Your task to perform on an android device: Open my contact list Image 0: 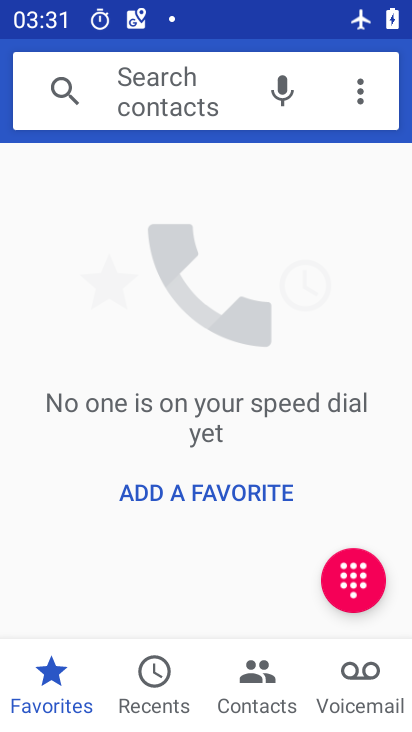
Step 0: press back button
Your task to perform on an android device: Open my contact list Image 1: 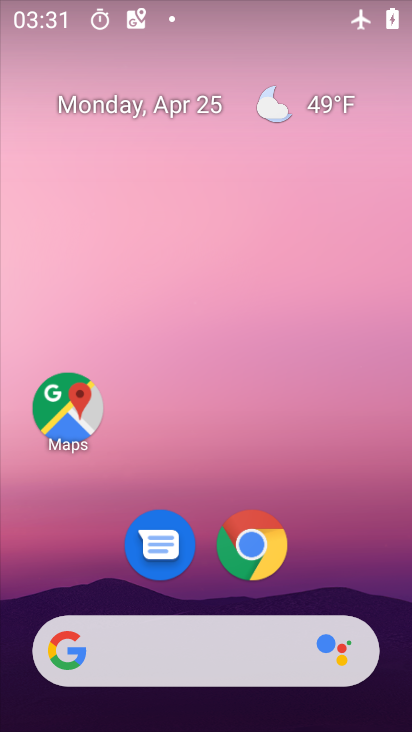
Step 1: drag from (186, 447) to (221, 20)
Your task to perform on an android device: Open my contact list Image 2: 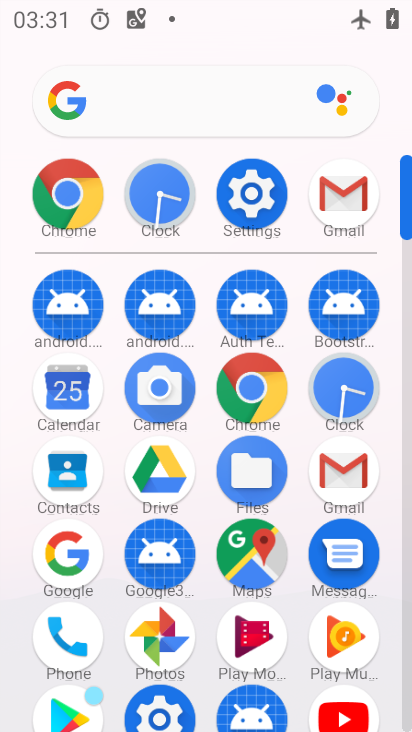
Step 2: click (68, 476)
Your task to perform on an android device: Open my contact list Image 3: 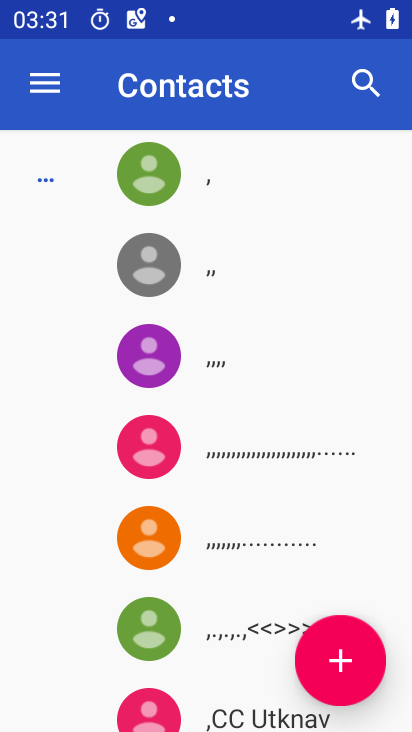
Step 3: task complete